Your task to perform on an android device: Go to internet settings Image 0: 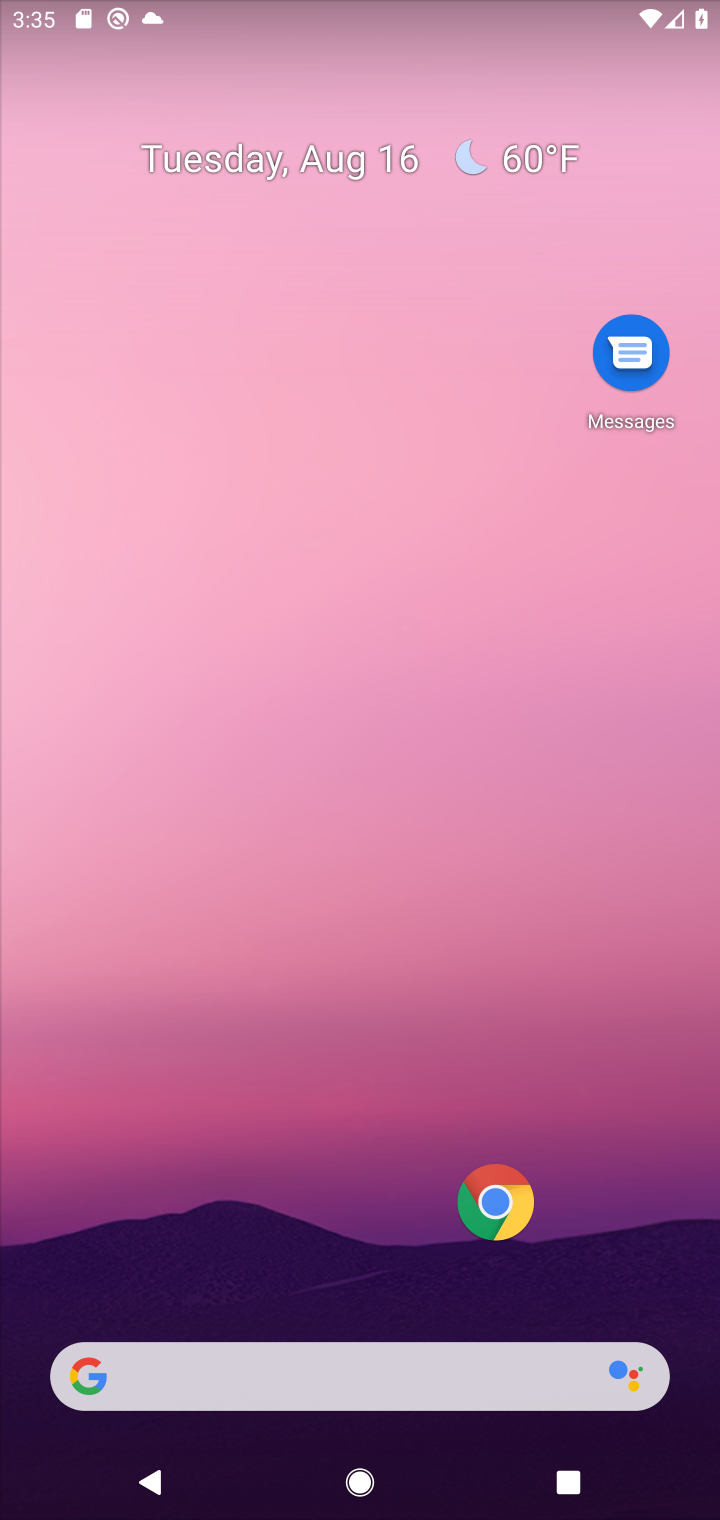
Step 0: drag from (278, 677) to (461, 105)
Your task to perform on an android device: Go to internet settings Image 1: 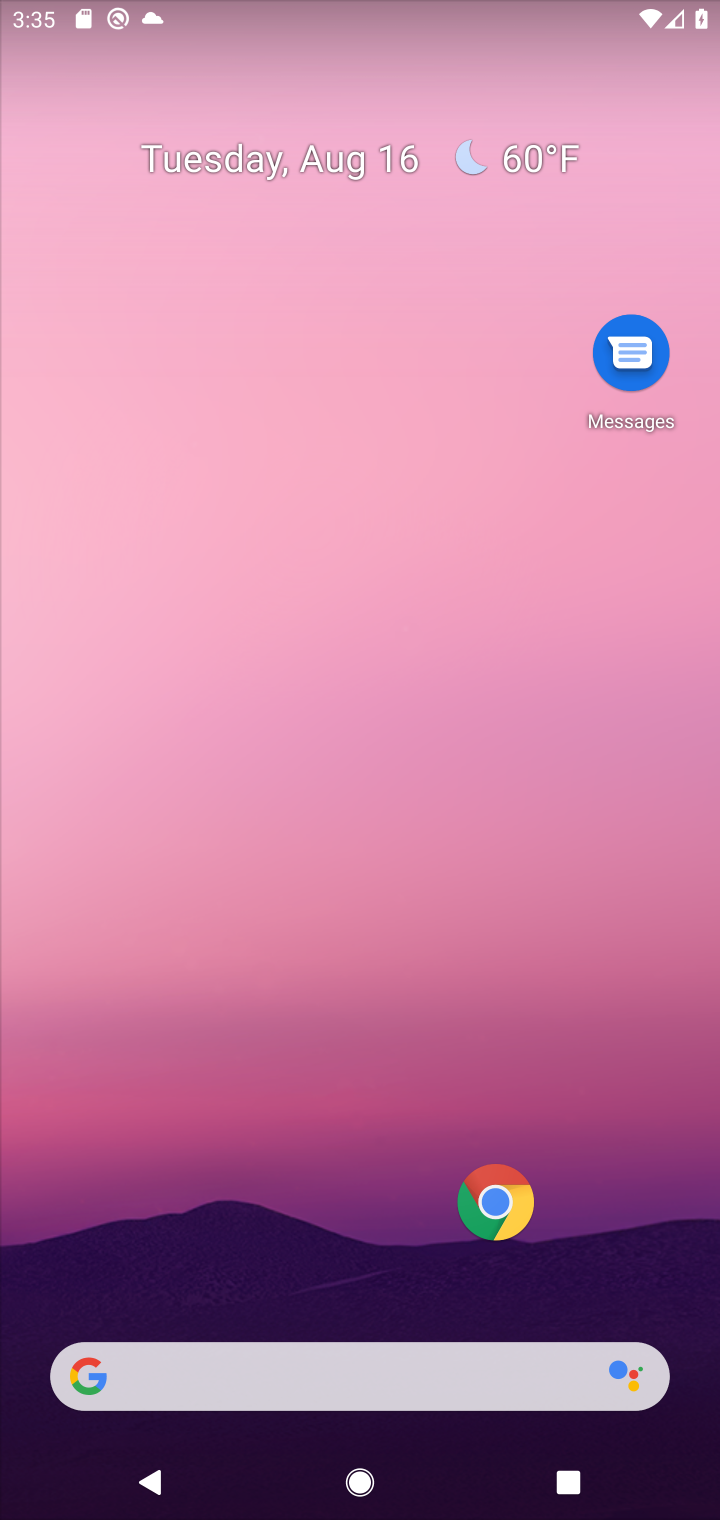
Step 1: drag from (325, 703) to (591, 101)
Your task to perform on an android device: Go to internet settings Image 2: 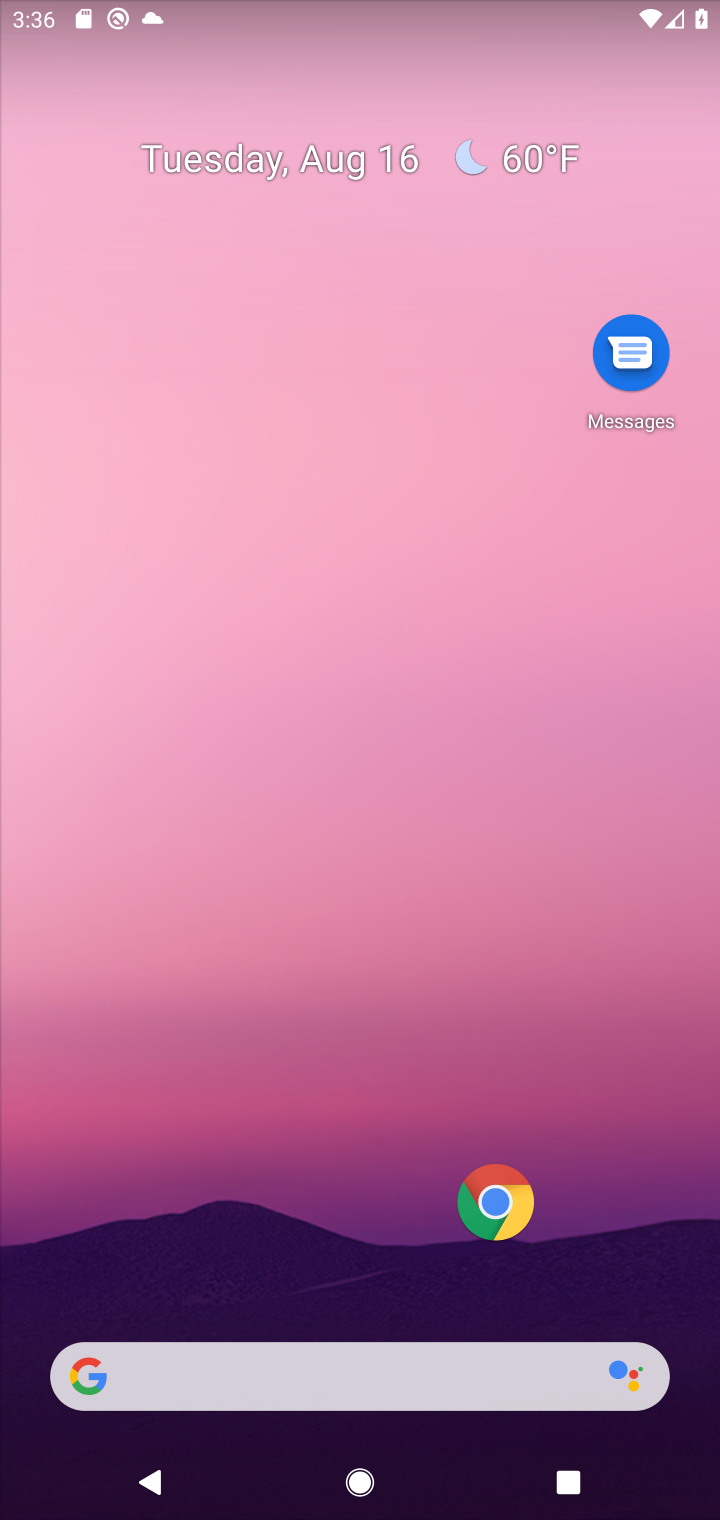
Step 2: drag from (412, 526) to (540, 137)
Your task to perform on an android device: Go to internet settings Image 3: 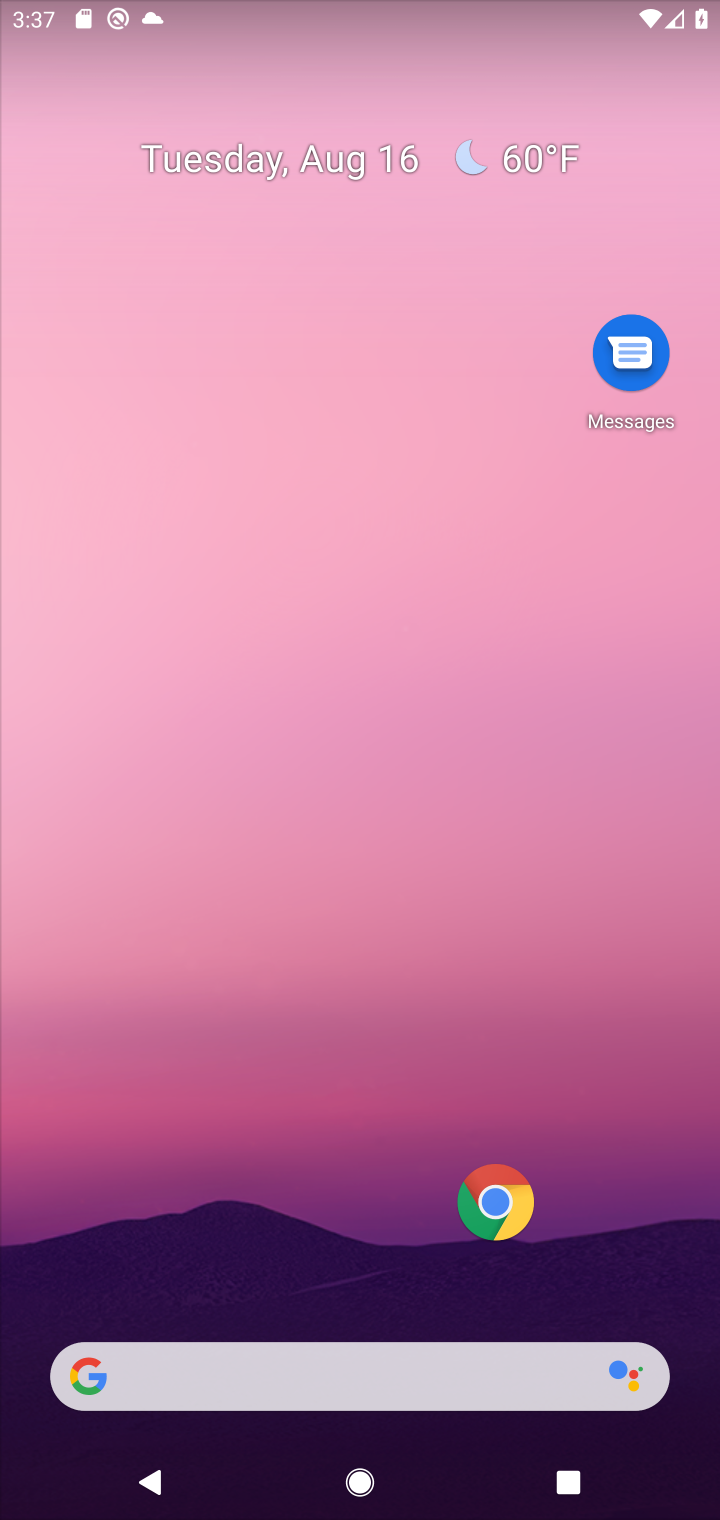
Step 3: drag from (145, 816) to (329, 38)
Your task to perform on an android device: Go to internet settings Image 4: 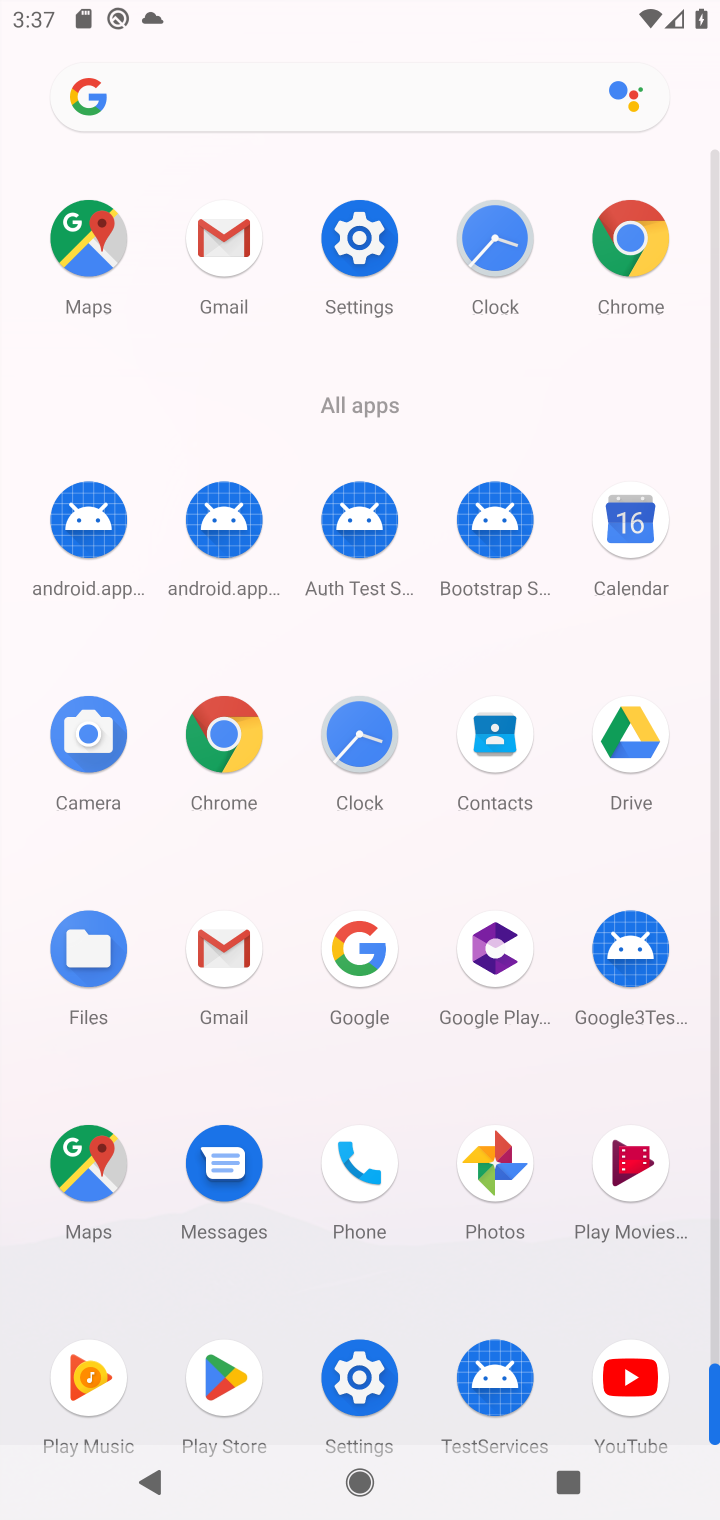
Step 4: click (355, 236)
Your task to perform on an android device: Go to internet settings Image 5: 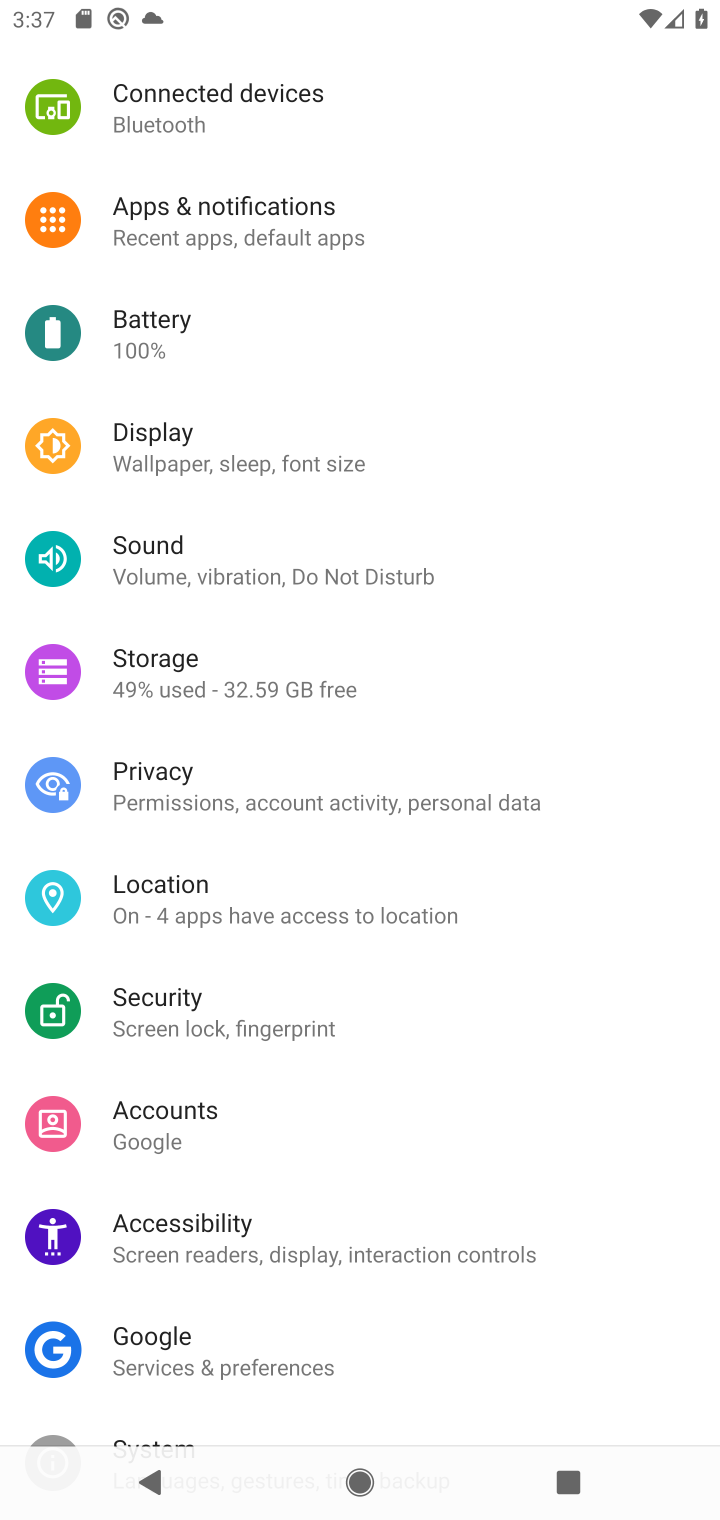
Step 5: drag from (226, 224) to (265, 1334)
Your task to perform on an android device: Go to internet settings Image 6: 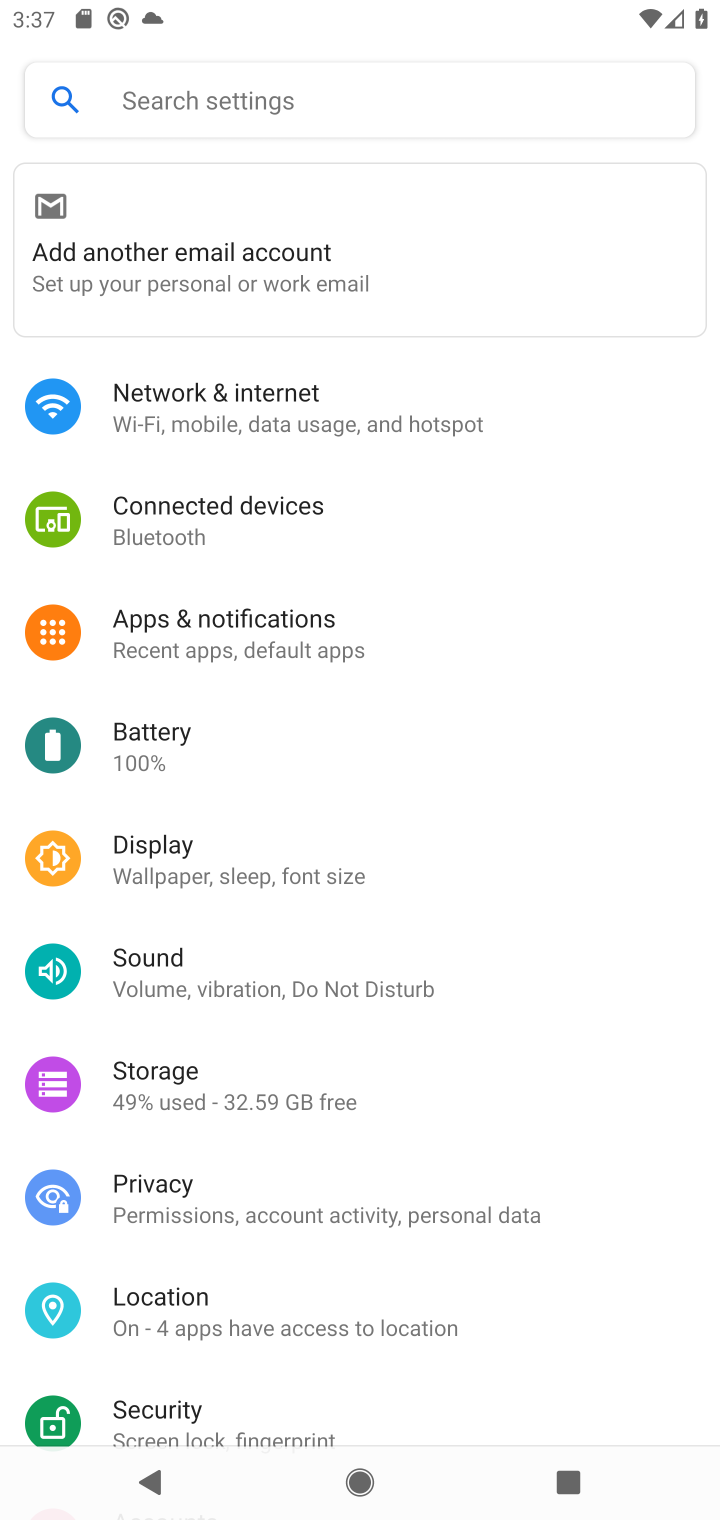
Step 6: click (298, 423)
Your task to perform on an android device: Go to internet settings Image 7: 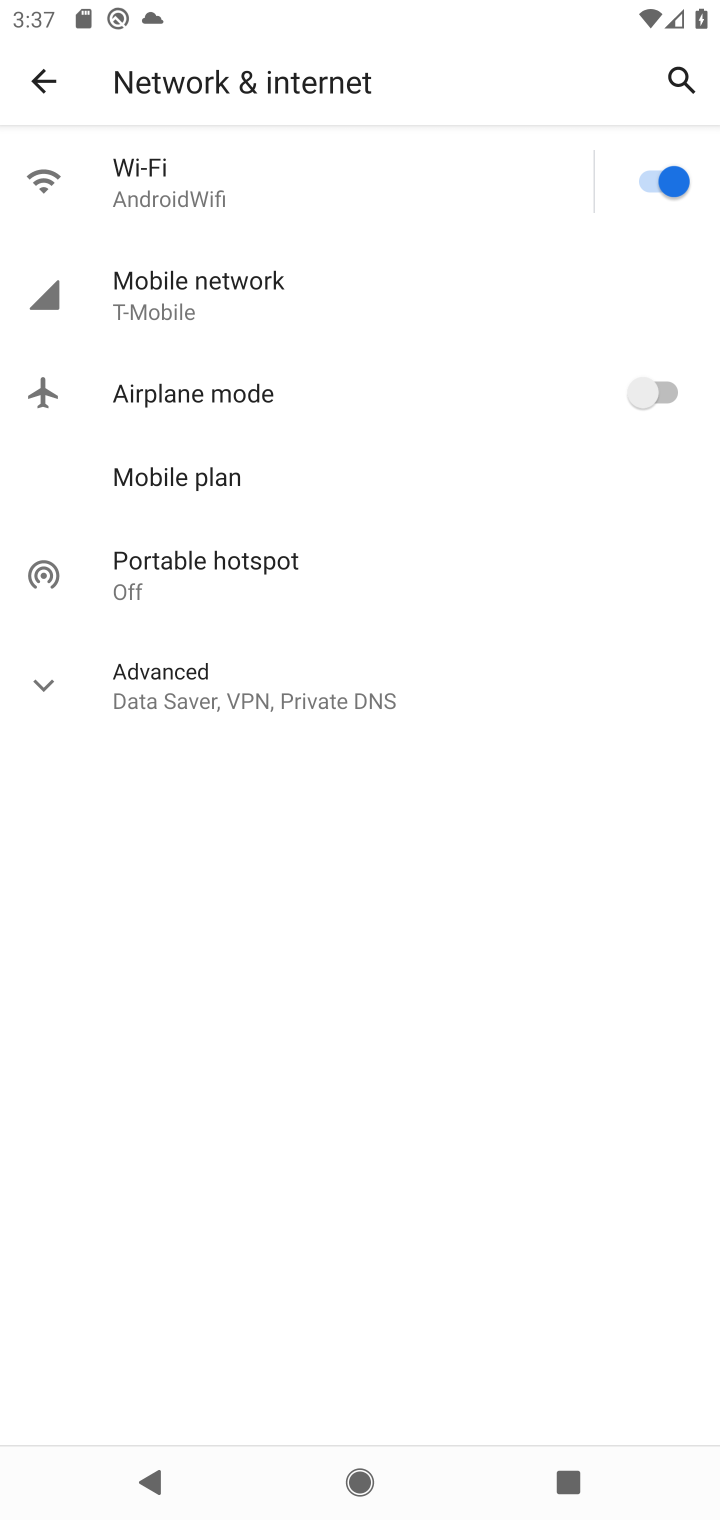
Step 7: click (220, 314)
Your task to perform on an android device: Go to internet settings Image 8: 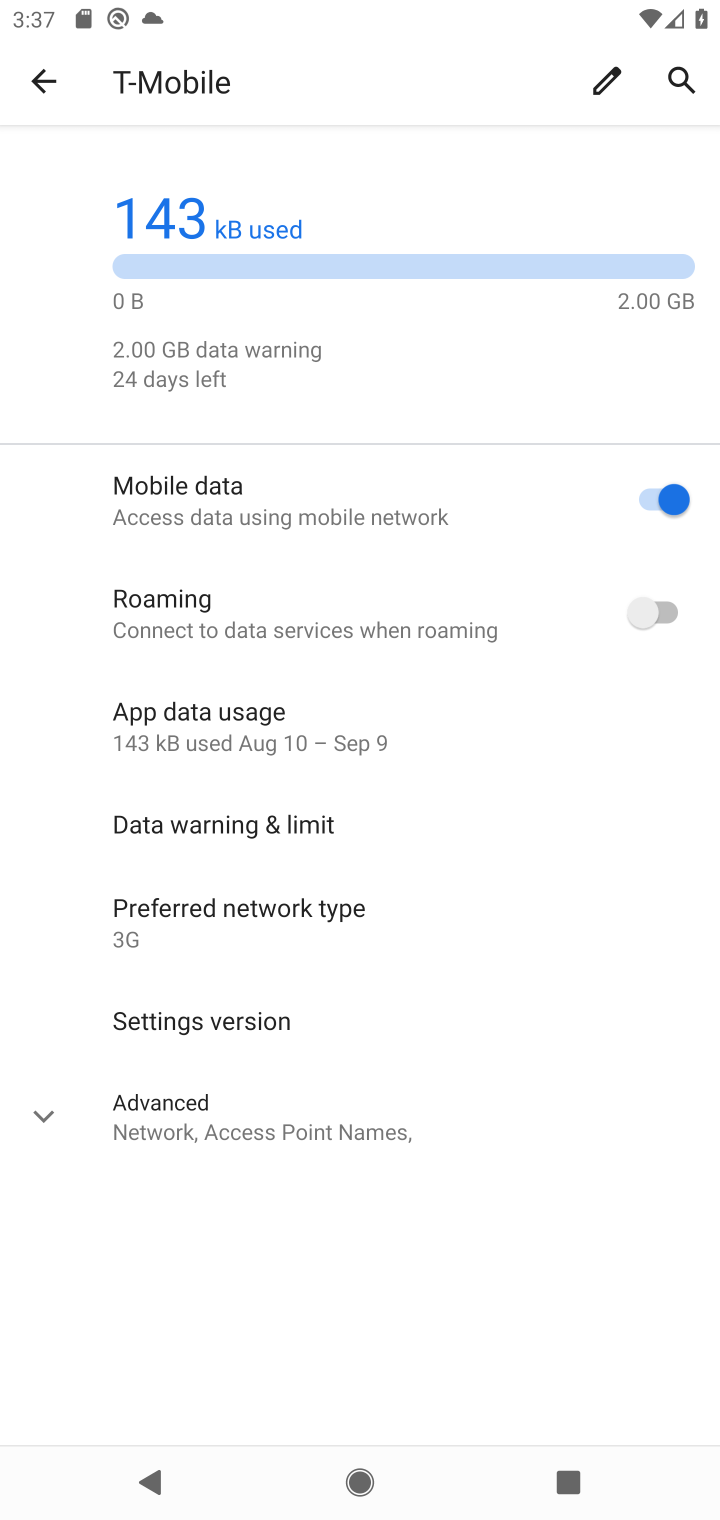
Step 8: task complete